Your task to perform on an android device: add a contact in the contacts app Image 0: 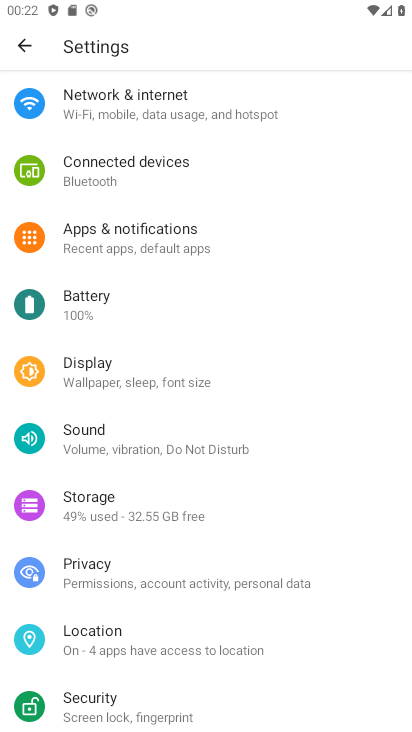
Step 0: press home button
Your task to perform on an android device: add a contact in the contacts app Image 1: 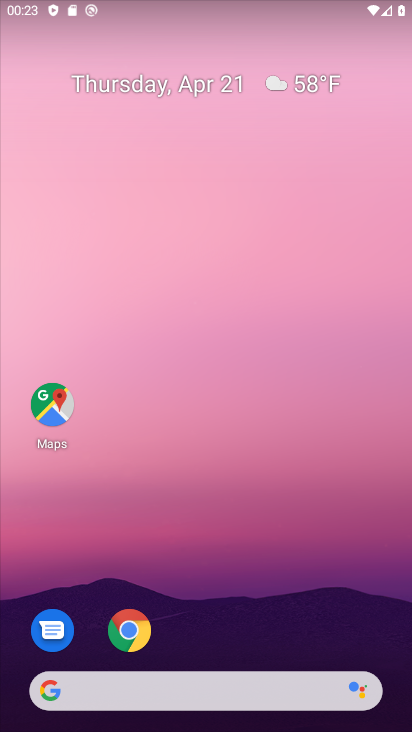
Step 1: drag from (151, 689) to (282, 125)
Your task to perform on an android device: add a contact in the contacts app Image 2: 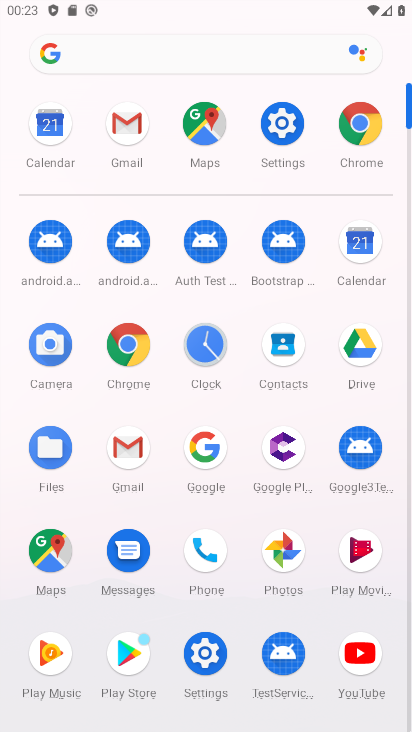
Step 2: click (281, 351)
Your task to perform on an android device: add a contact in the contacts app Image 3: 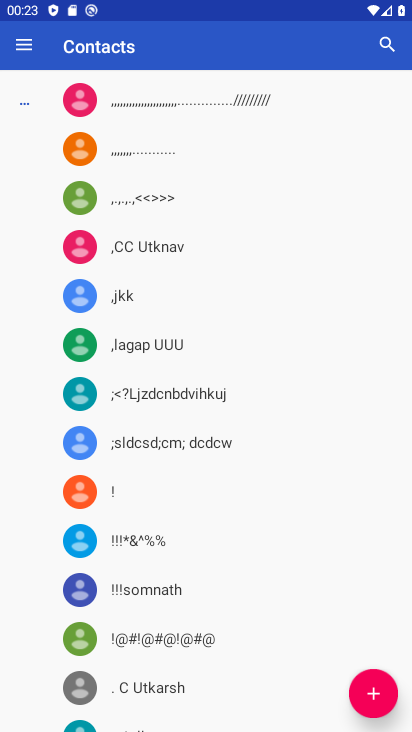
Step 3: click (370, 699)
Your task to perform on an android device: add a contact in the contacts app Image 4: 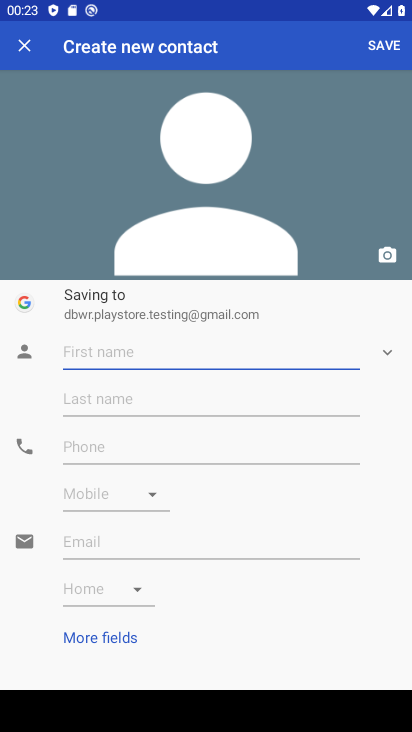
Step 4: click (153, 343)
Your task to perform on an android device: add a contact in the contacts app Image 5: 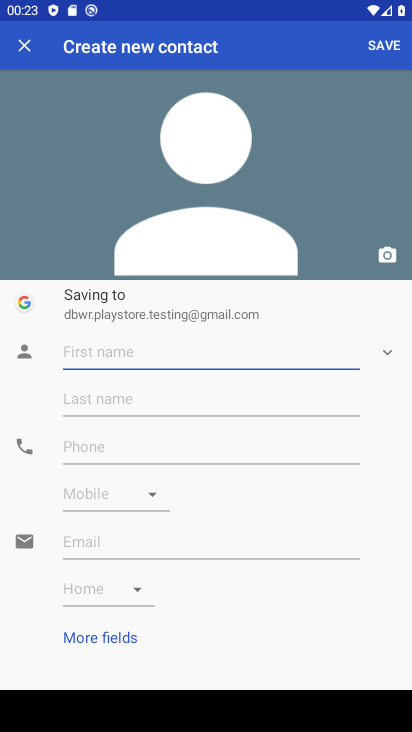
Step 5: type "btyfhgtyg"
Your task to perform on an android device: add a contact in the contacts app Image 6: 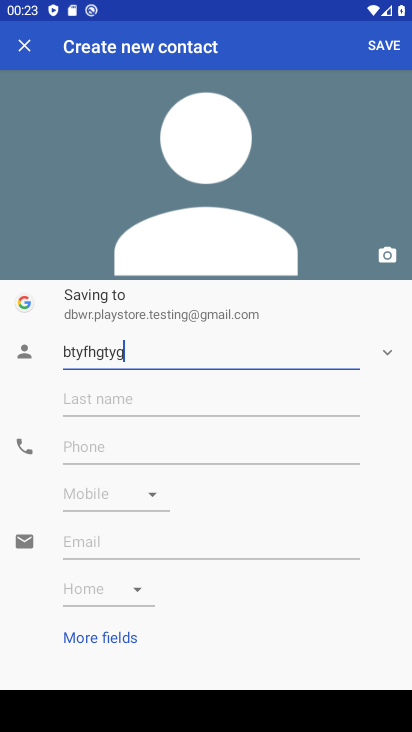
Step 6: click (98, 440)
Your task to perform on an android device: add a contact in the contacts app Image 7: 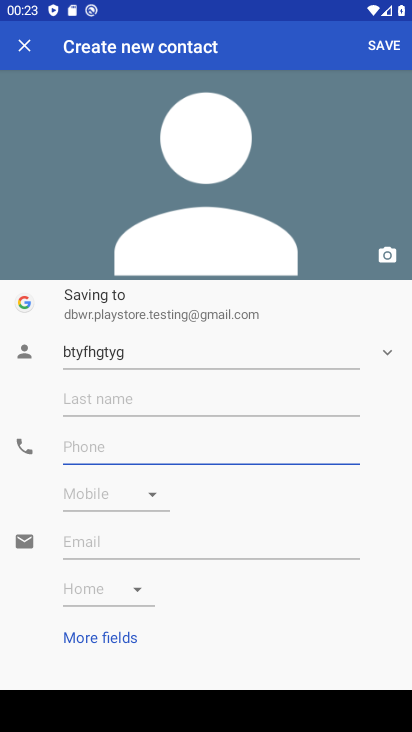
Step 7: type "2764987"
Your task to perform on an android device: add a contact in the contacts app Image 8: 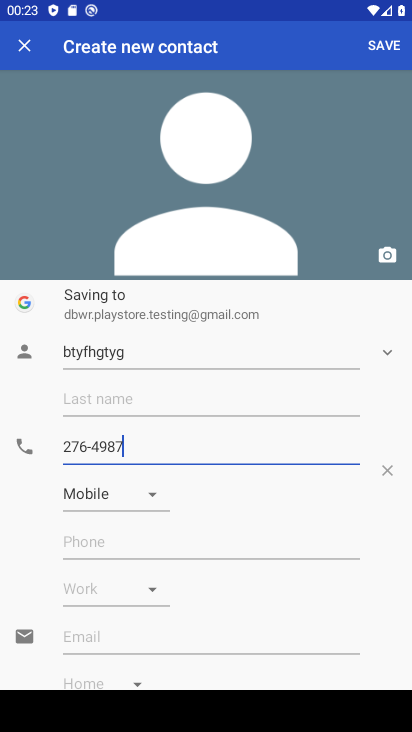
Step 8: click (381, 44)
Your task to perform on an android device: add a contact in the contacts app Image 9: 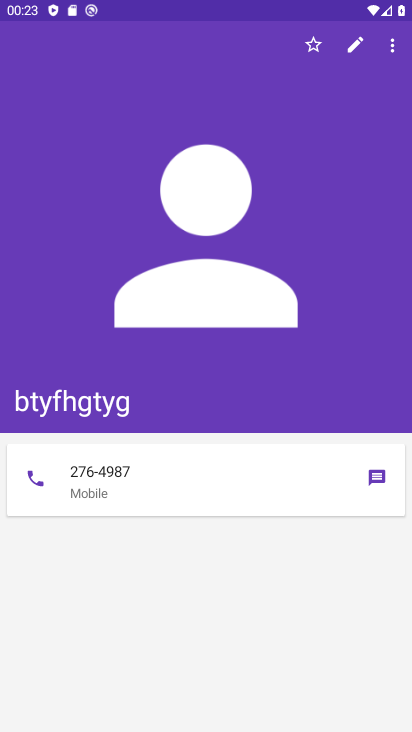
Step 9: task complete